Your task to perform on an android device: Is it going to rain this weekend? Image 0: 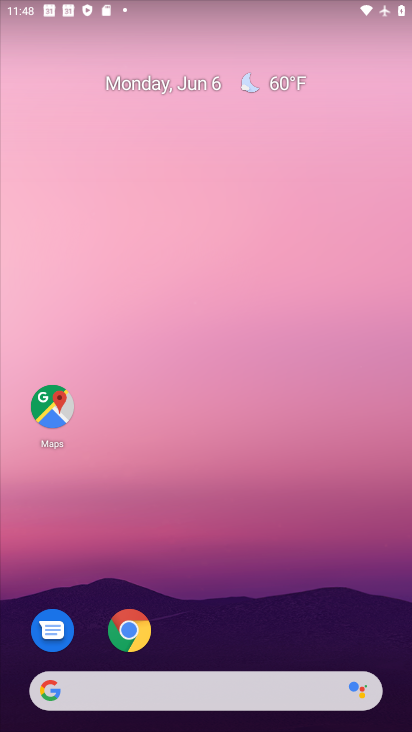
Step 0: drag from (385, 618) to (282, 41)
Your task to perform on an android device: Is it going to rain this weekend? Image 1: 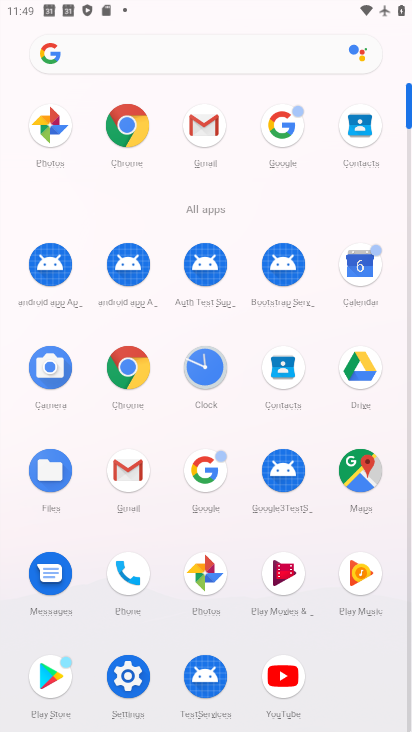
Step 1: click (206, 466)
Your task to perform on an android device: Is it going to rain this weekend? Image 2: 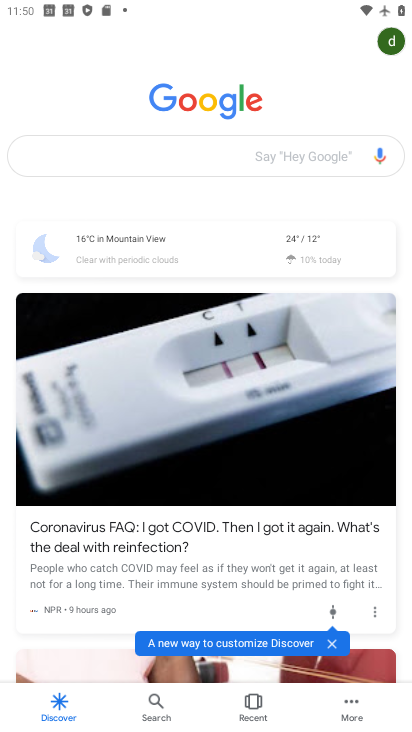
Step 2: click (145, 159)
Your task to perform on an android device: Is it going to rain this weekend? Image 3: 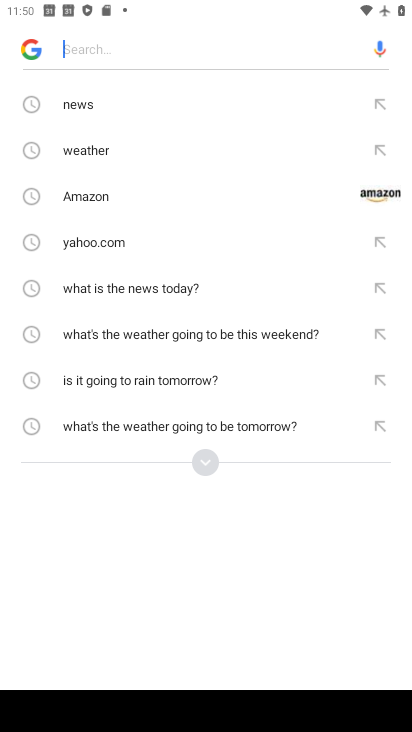
Step 3: click (214, 458)
Your task to perform on an android device: Is it going to rain this weekend? Image 4: 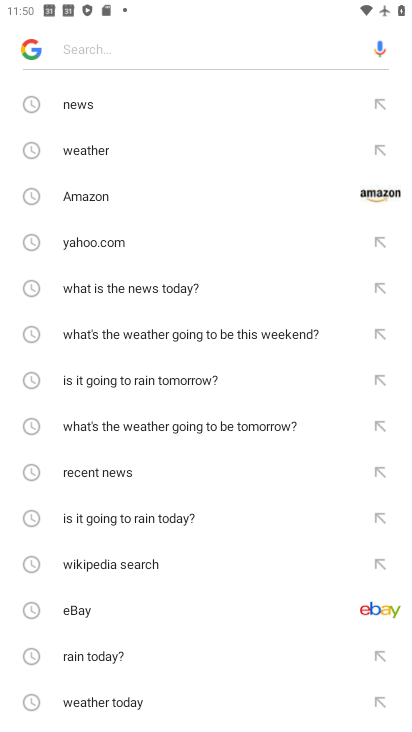
Step 4: drag from (142, 639) to (180, 146)
Your task to perform on an android device: Is it going to rain this weekend? Image 5: 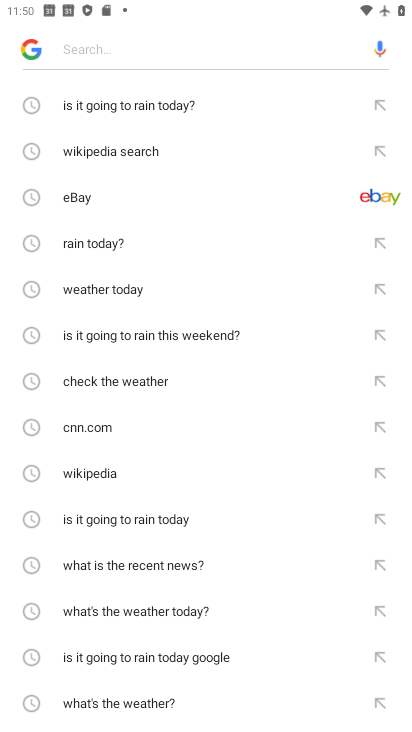
Step 5: click (183, 343)
Your task to perform on an android device: Is it going to rain this weekend? Image 6: 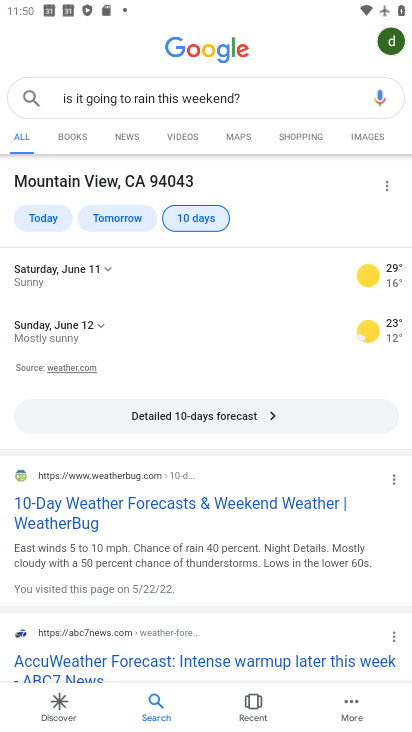
Step 6: task complete